Your task to perform on an android device: toggle improve location accuracy Image 0: 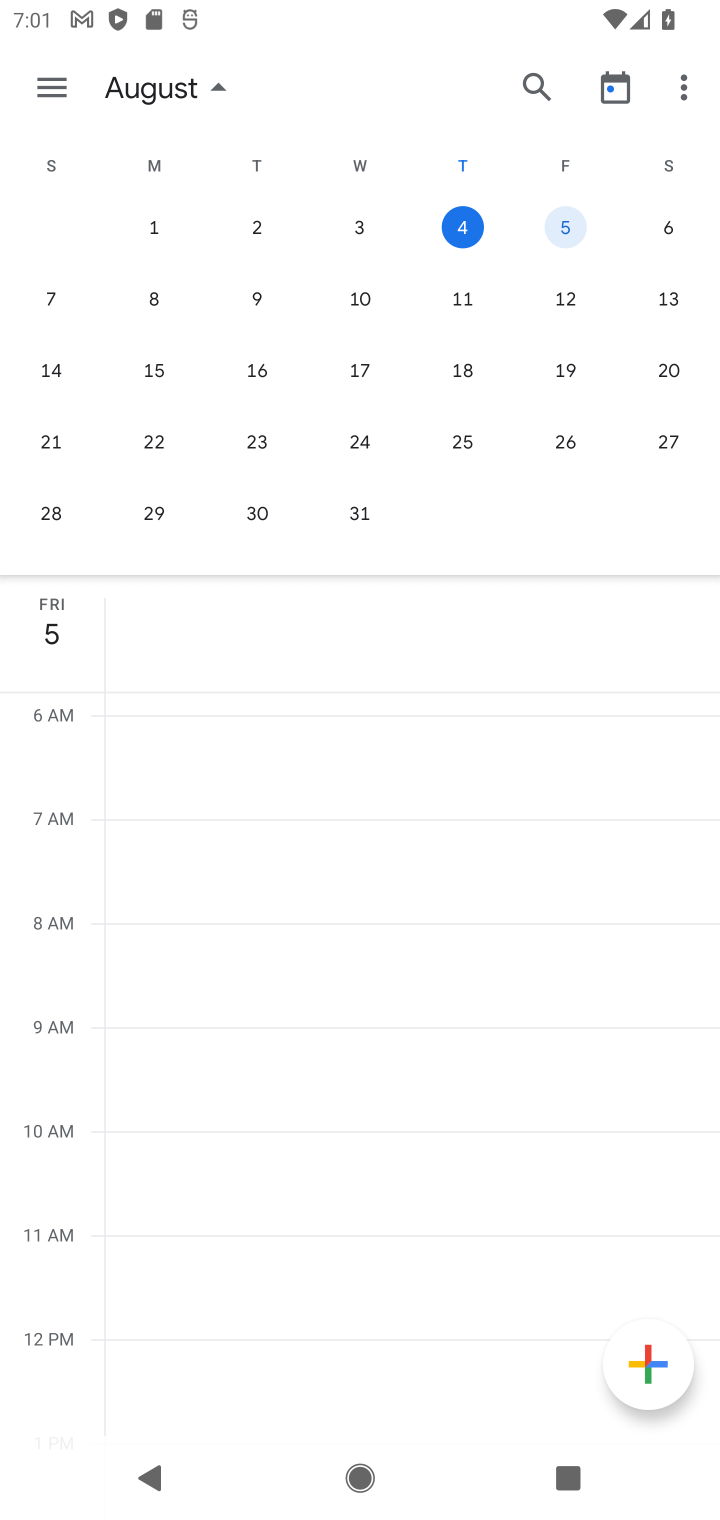
Step 0: press home button
Your task to perform on an android device: toggle improve location accuracy Image 1: 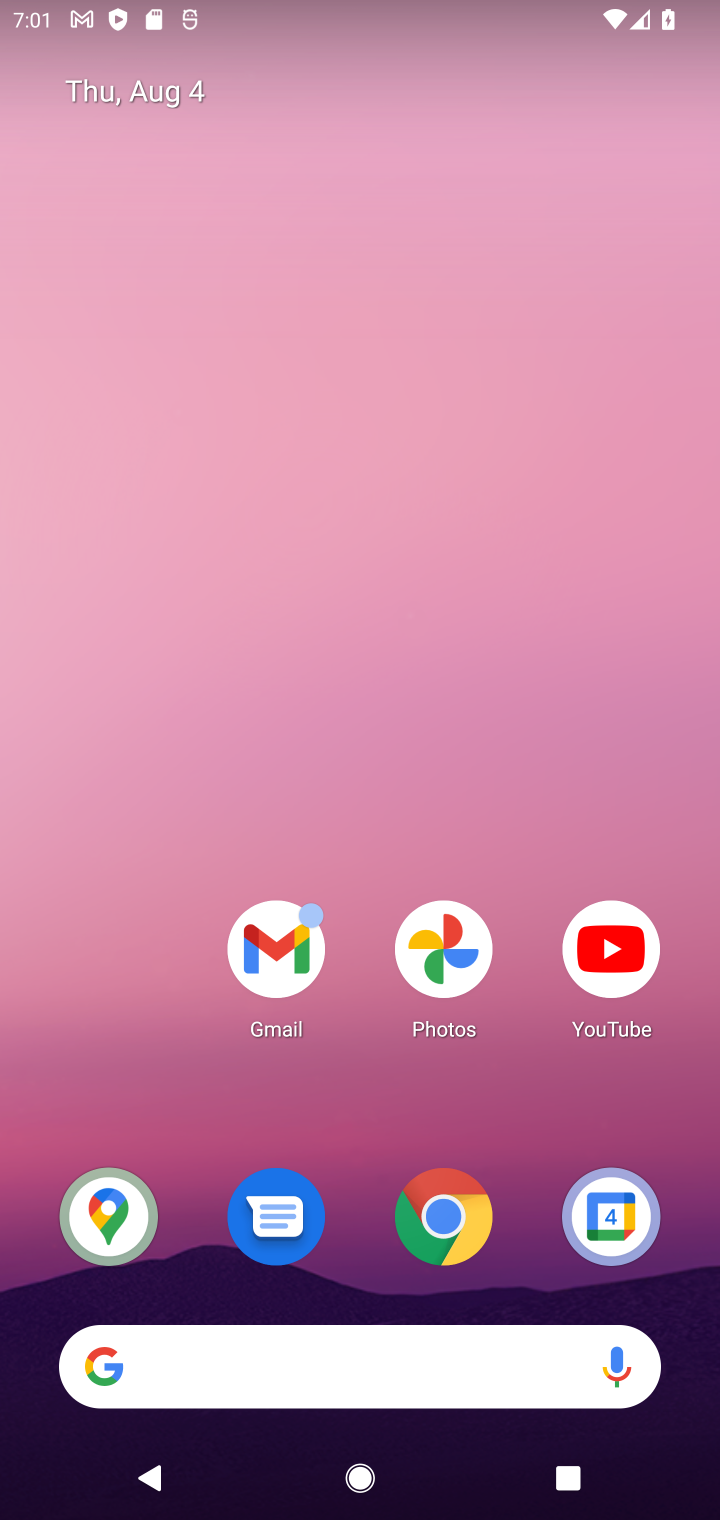
Step 1: drag from (364, 1312) to (326, 86)
Your task to perform on an android device: toggle improve location accuracy Image 2: 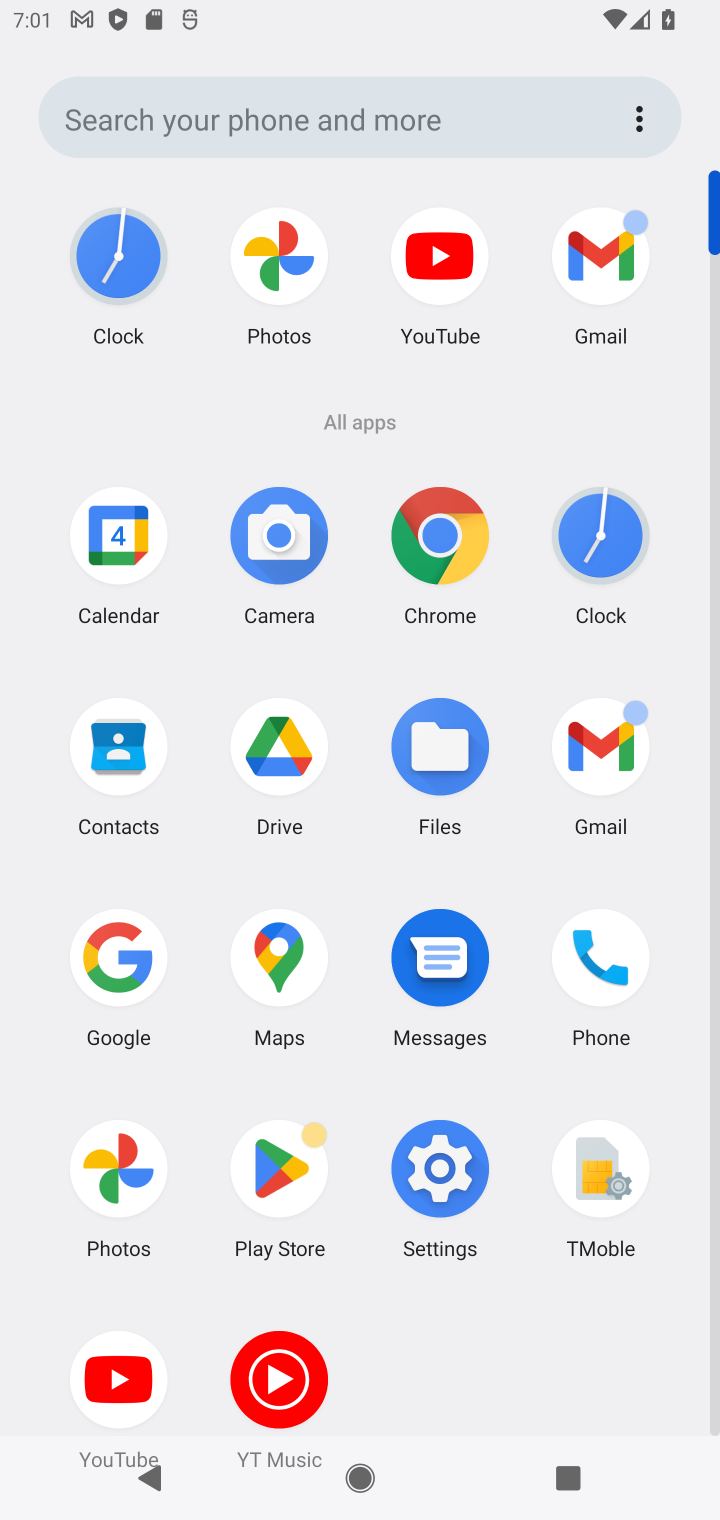
Step 2: click (431, 1181)
Your task to perform on an android device: toggle improve location accuracy Image 3: 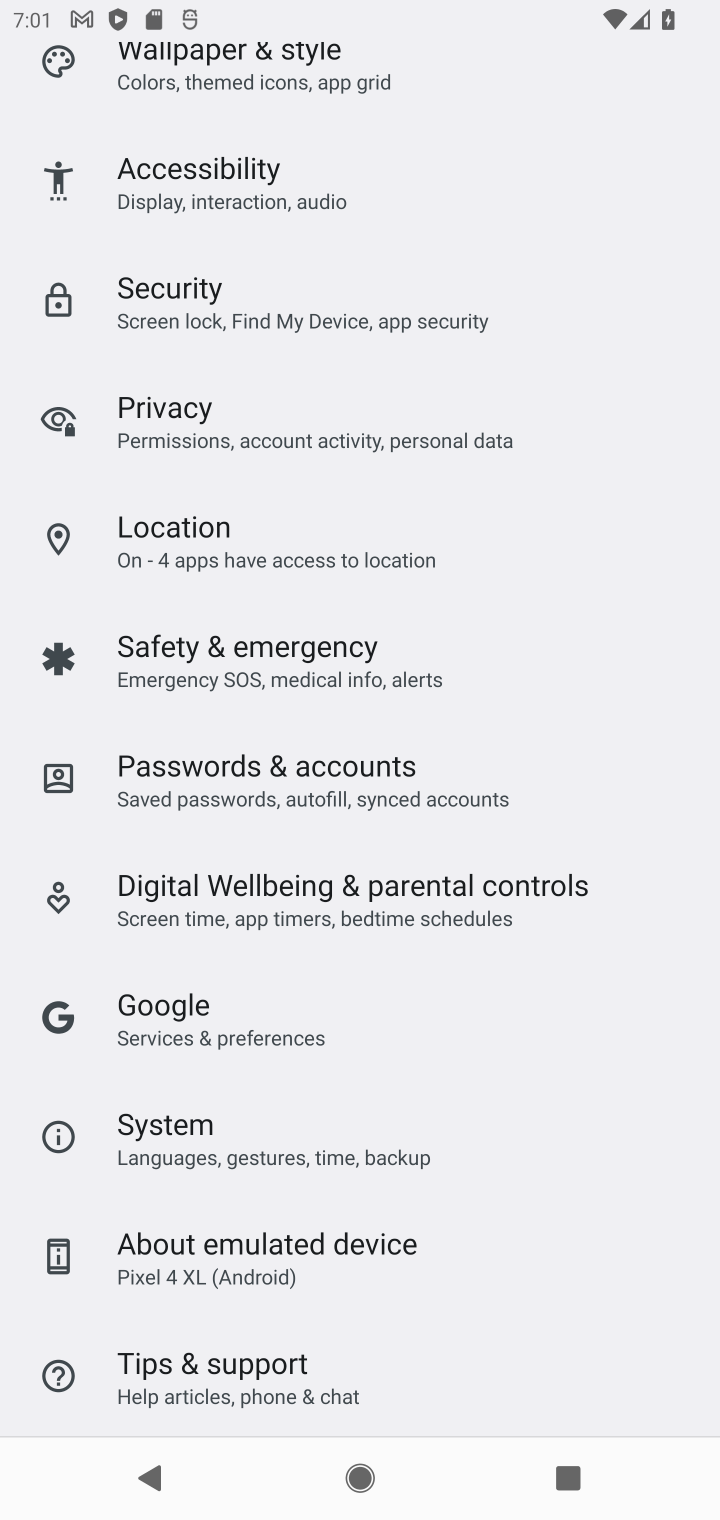
Step 3: click (192, 549)
Your task to perform on an android device: toggle improve location accuracy Image 4: 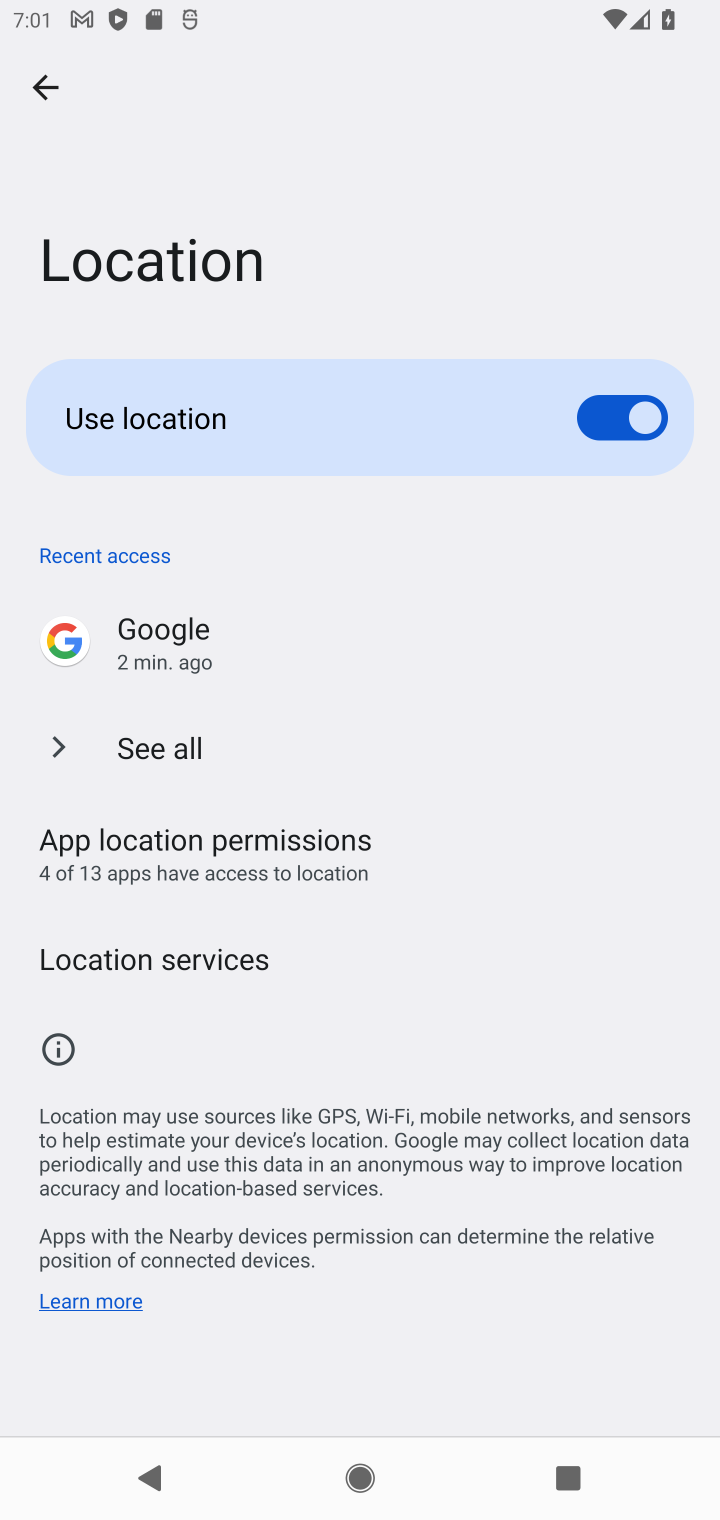
Step 4: click (128, 960)
Your task to perform on an android device: toggle improve location accuracy Image 5: 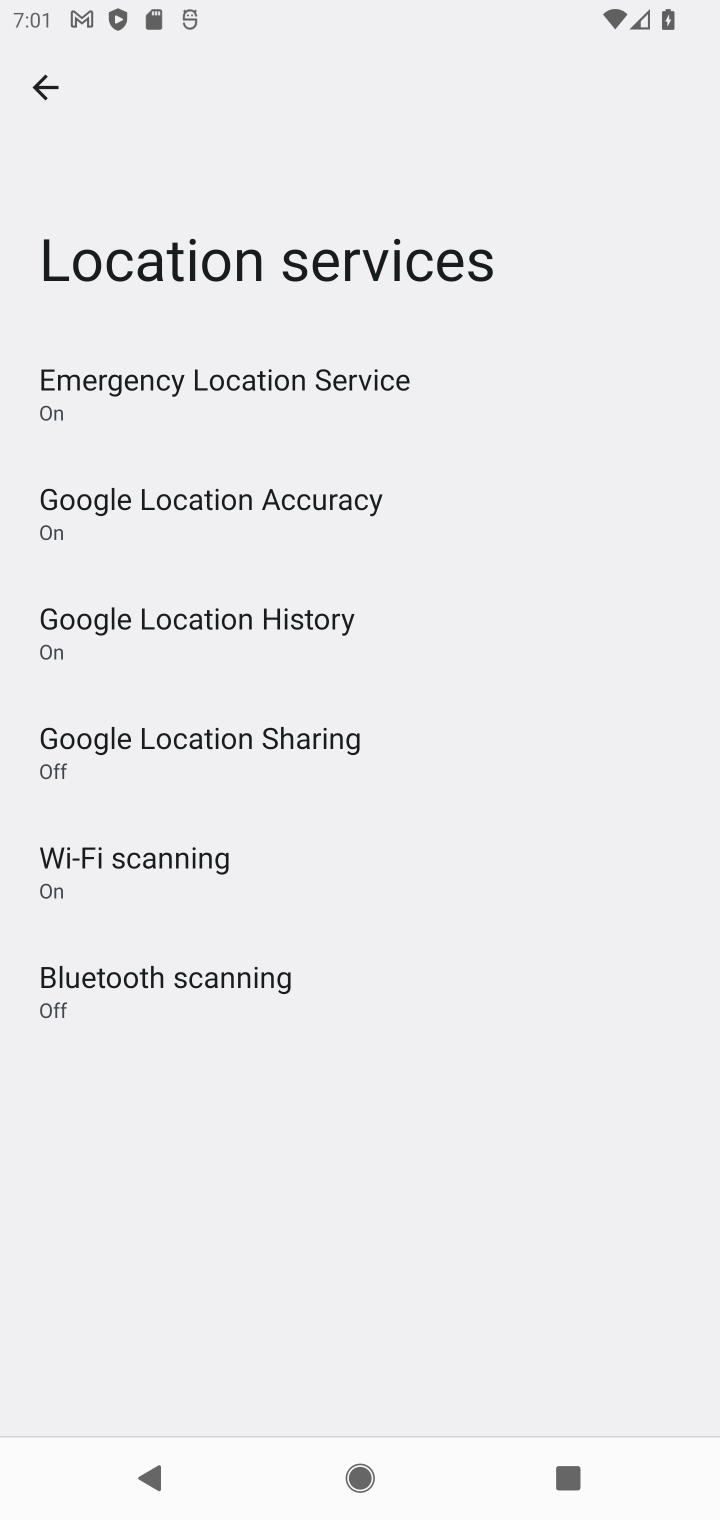
Step 5: click (302, 492)
Your task to perform on an android device: toggle improve location accuracy Image 6: 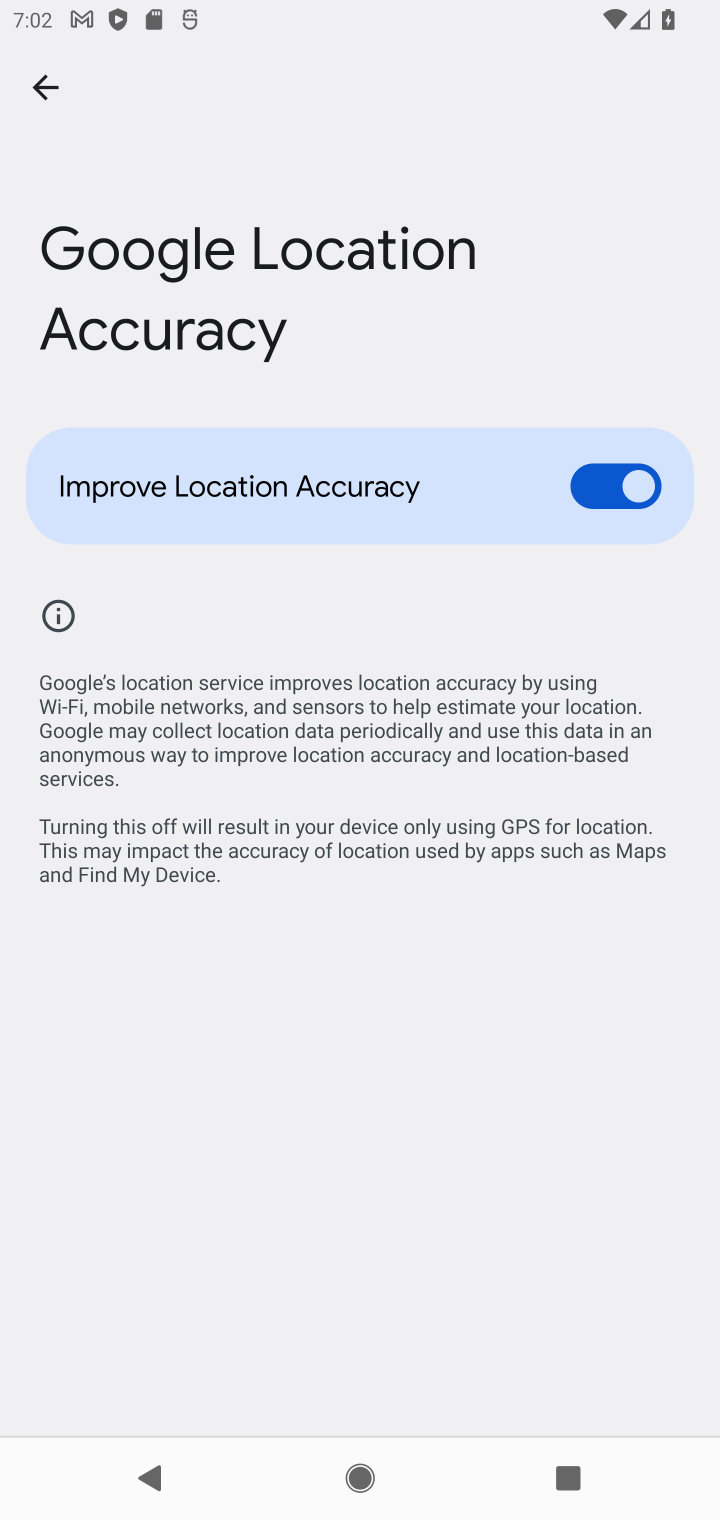
Step 6: click (600, 487)
Your task to perform on an android device: toggle improve location accuracy Image 7: 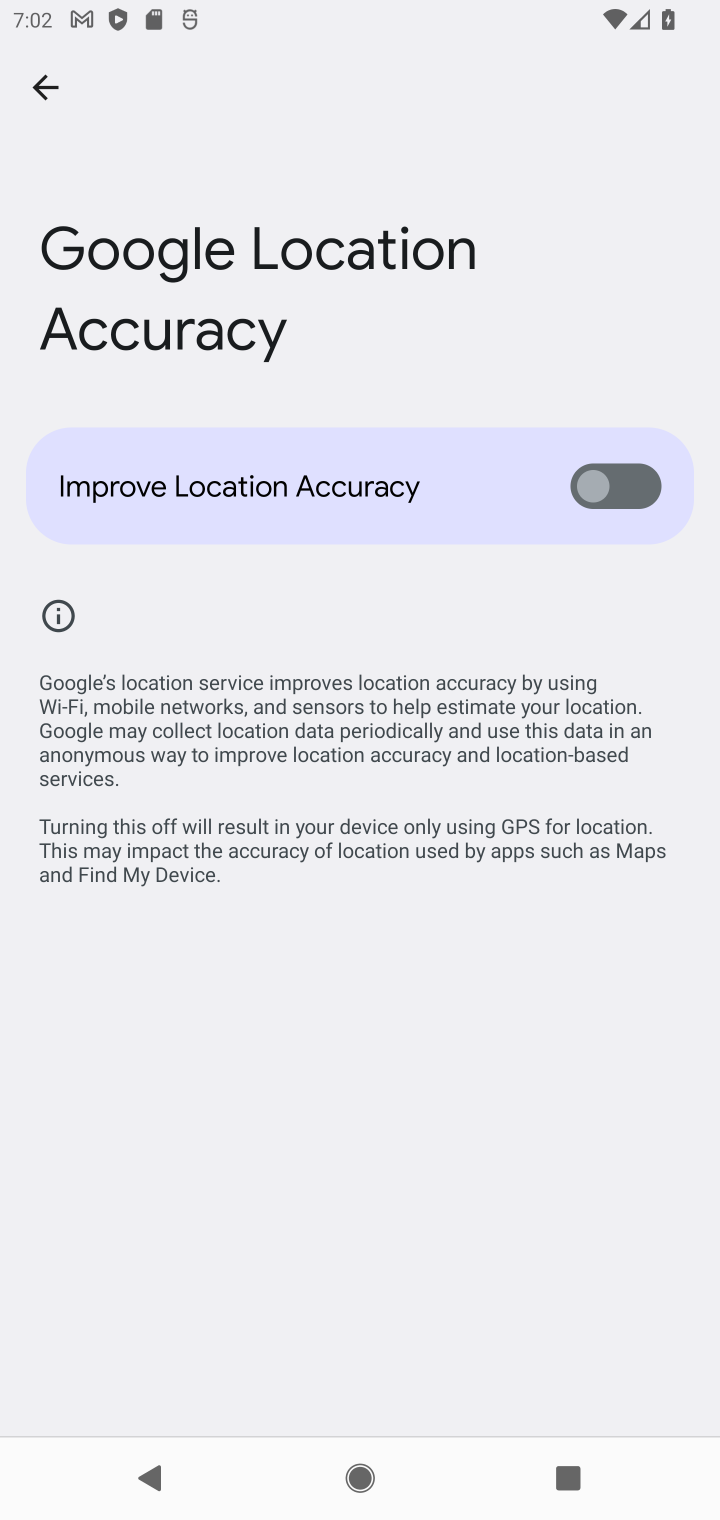
Step 7: task complete